Your task to perform on an android device: Open the stopwatch Image 0: 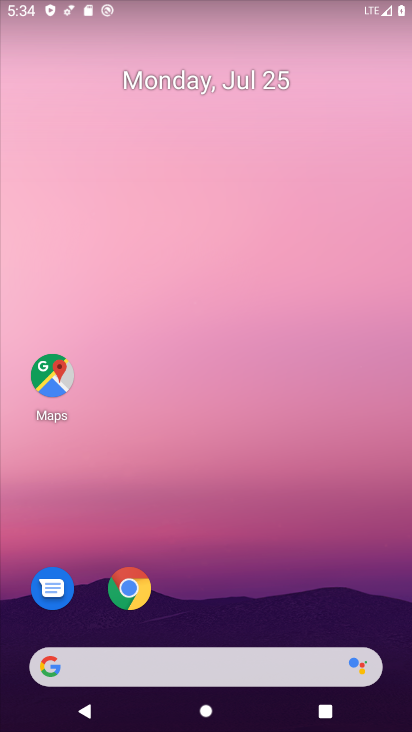
Step 0: drag from (208, 660) to (366, 31)
Your task to perform on an android device: Open the stopwatch Image 1: 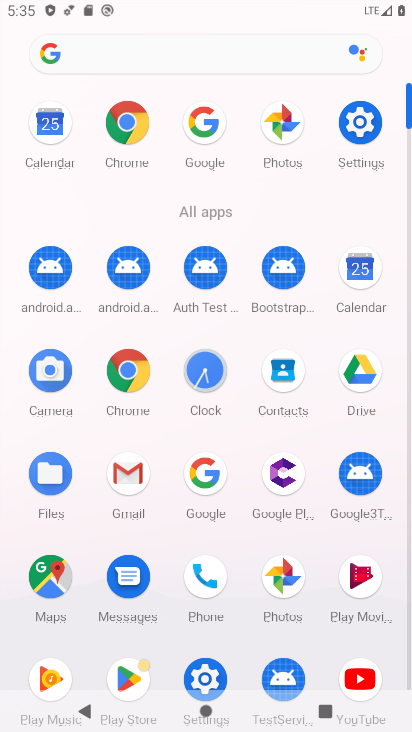
Step 1: click (205, 371)
Your task to perform on an android device: Open the stopwatch Image 2: 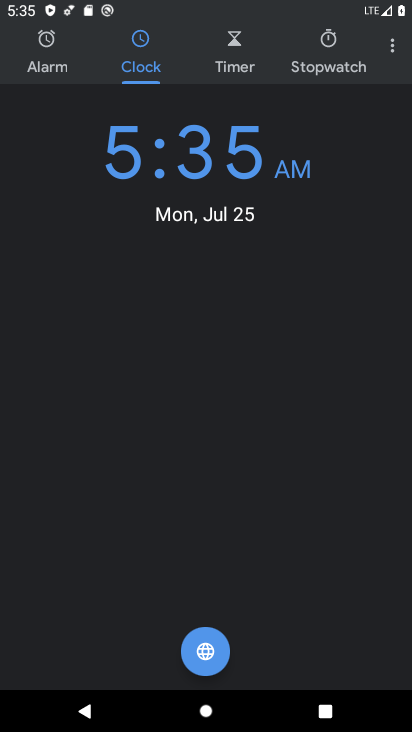
Step 2: click (329, 43)
Your task to perform on an android device: Open the stopwatch Image 3: 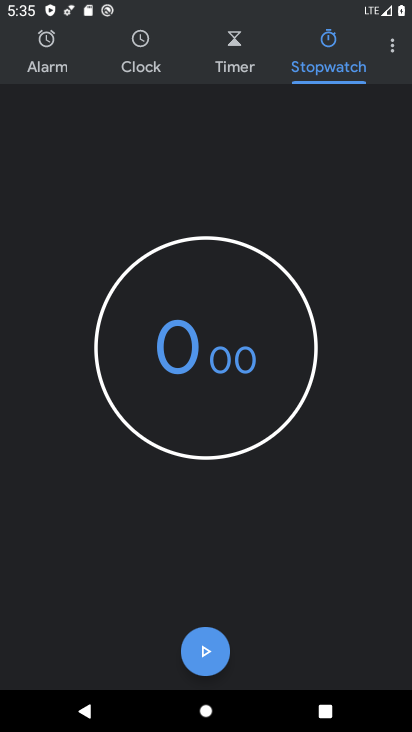
Step 3: task complete